Your task to perform on an android device: Play the last video I watched on Youtube Image 0: 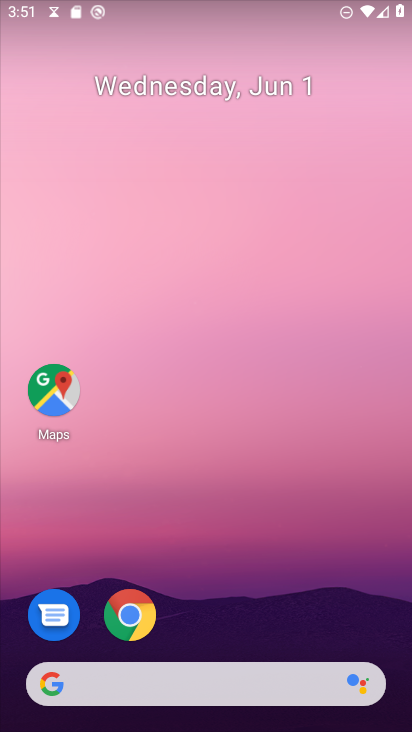
Step 0: press home button
Your task to perform on an android device: Play the last video I watched on Youtube Image 1: 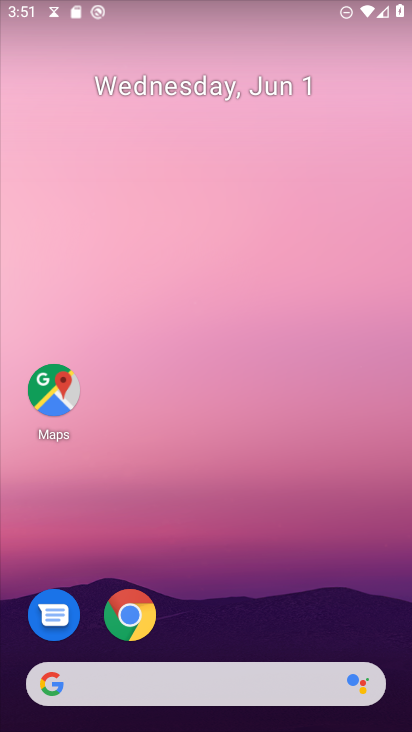
Step 1: drag from (219, 643) to (270, 72)
Your task to perform on an android device: Play the last video I watched on Youtube Image 2: 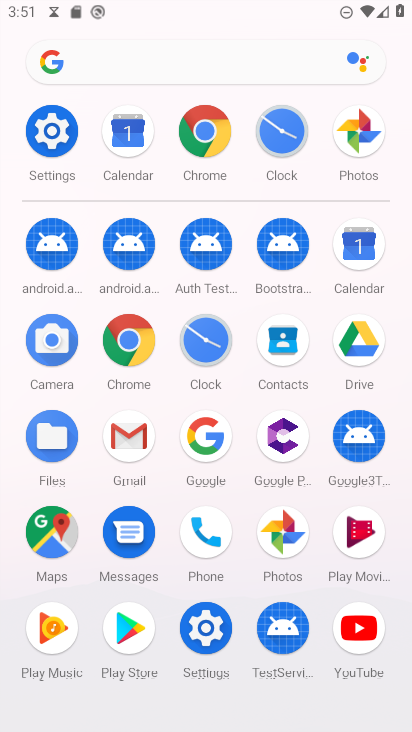
Step 2: click (354, 619)
Your task to perform on an android device: Play the last video I watched on Youtube Image 3: 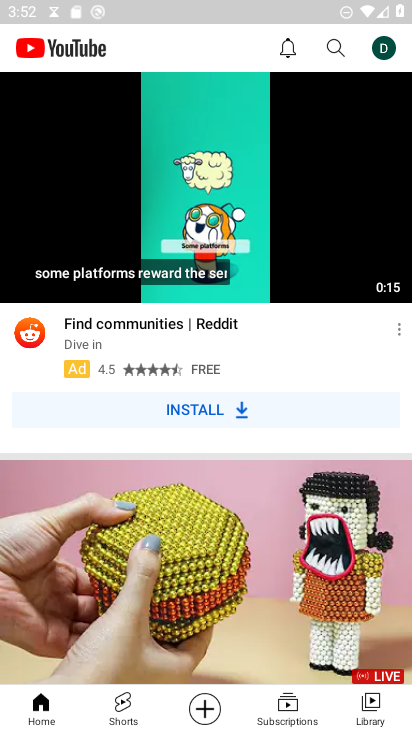
Step 3: click (372, 694)
Your task to perform on an android device: Play the last video I watched on Youtube Image 4: 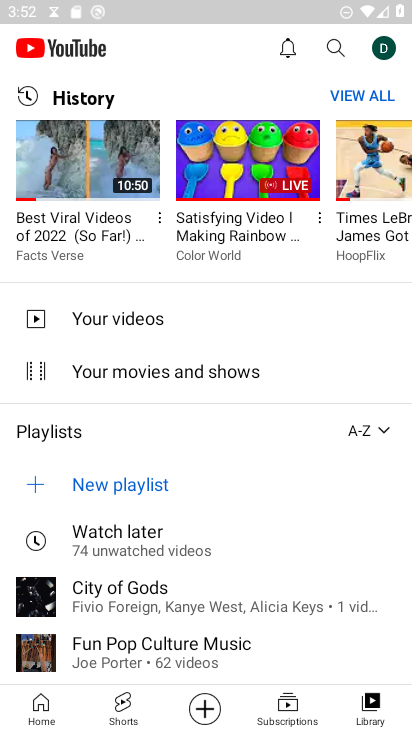
Step 4: click (79, 157)
Your task to perform on an android device: Play the last video I watched on Youtube Image 5: 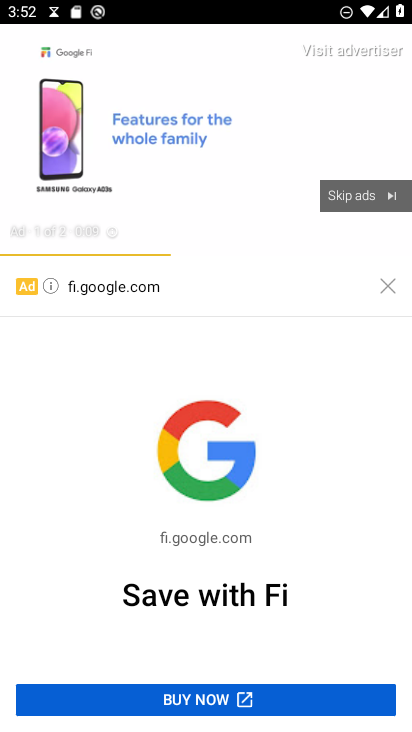
Step 5: click (374, 191)
Your task to perform on an android device: Play the last video I watched on Youtube Image 6: 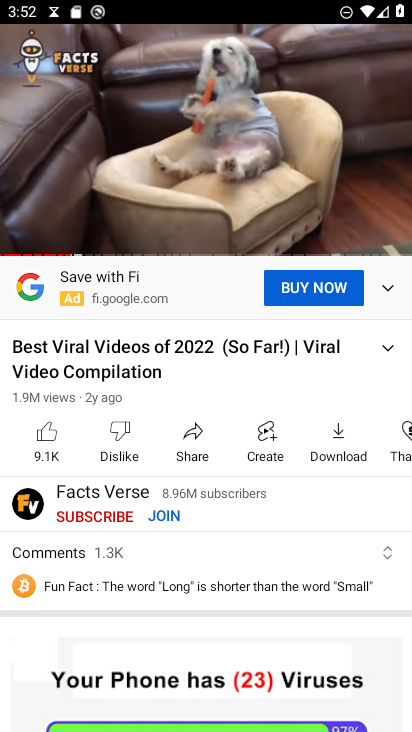
Step 6: task complete